Your task to perform on an android device: Go to settings Image 0: 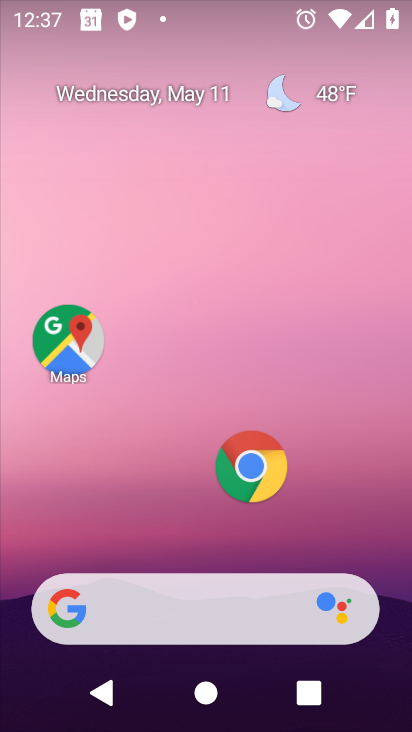
Step 0: drag from (222, 448) to (305, 5)
Your task to perform on an android device: Go to settings Image 1: 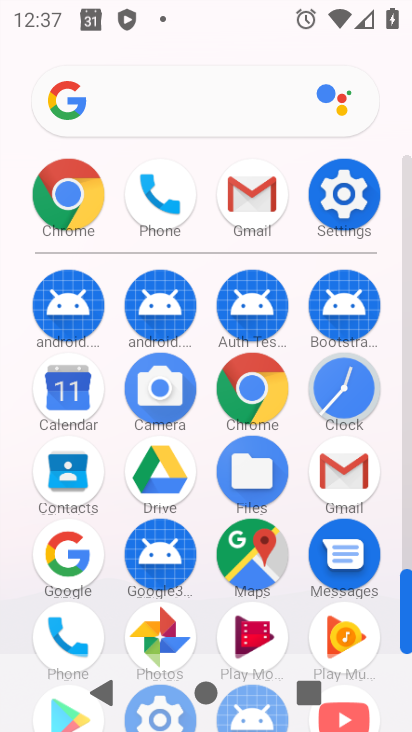
Step 1: click (370, 192)
Your task to perform on an android device: Go to settings Image 2: 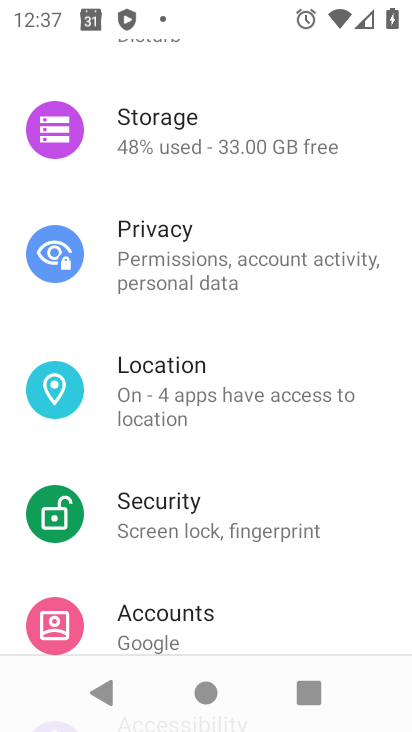
Step 2: task complete